Your task to perform on an android device: change alarm snooze length Image 0: 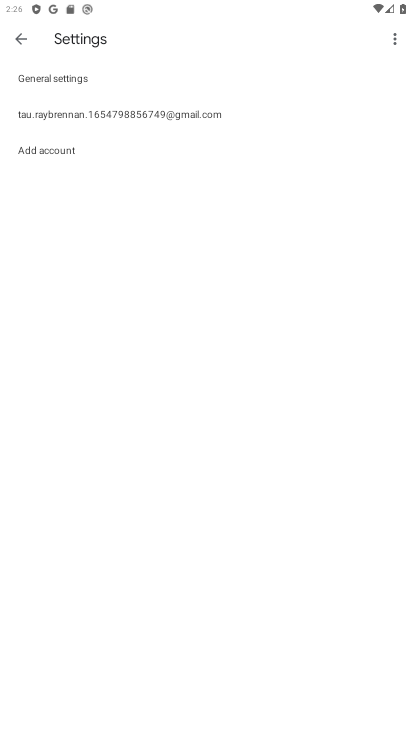
Step 0: press home button
Your task to perform on an android device: change alarm snooze length Image 1: 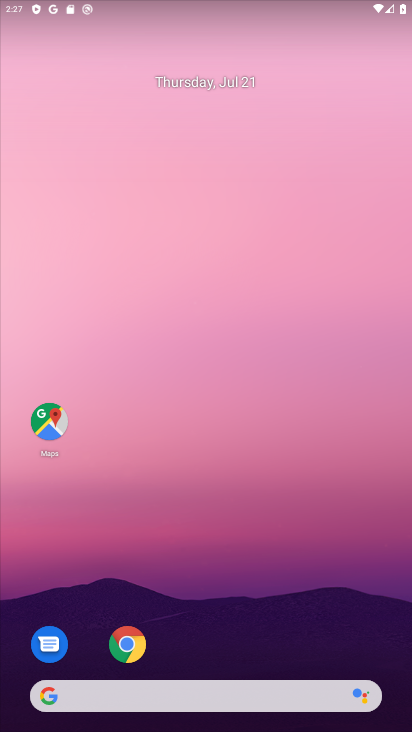
Step 1: drag from (263, 636) to (196, 247)
Your task to perform on an android device: change alarm snooze length Image 2: 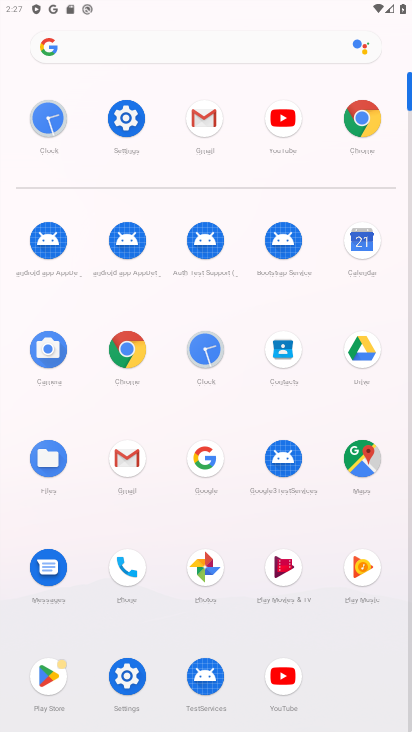
Step 2: click (44, 119)
Your task to perform on an android device: change alarm snooze length Image 3: 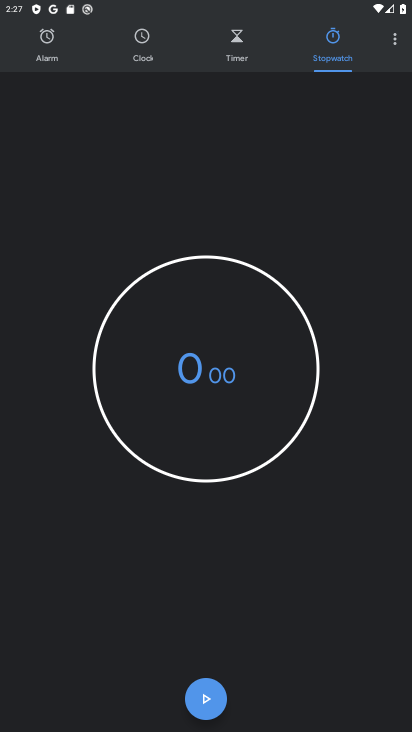
Step 3: click (405, 41)
Your task to perform on an android device: change alarm snooze length Image 4: 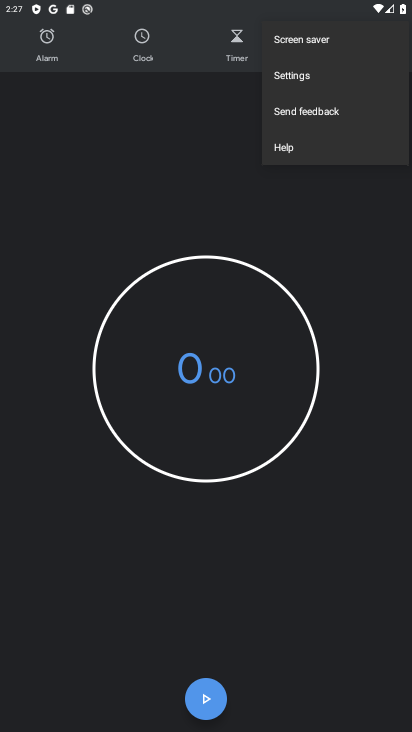
Step 4: click (346, 76)
Your task to perform on an android device: change alarm snooze length Image 5: 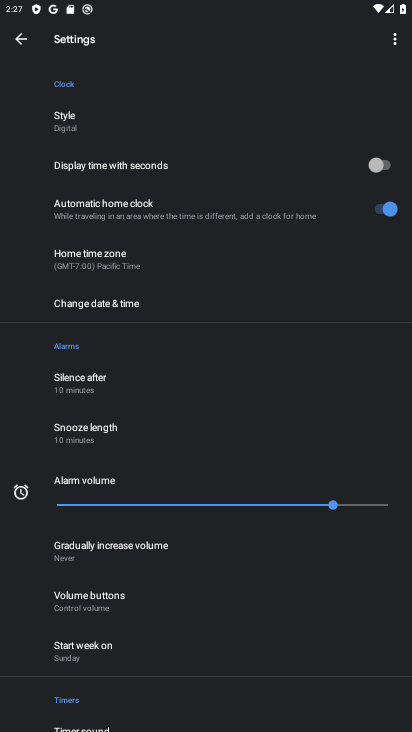
Step 5: click (149, 435)
Your task to perform on an android device: change alarm snooze length Image 6: 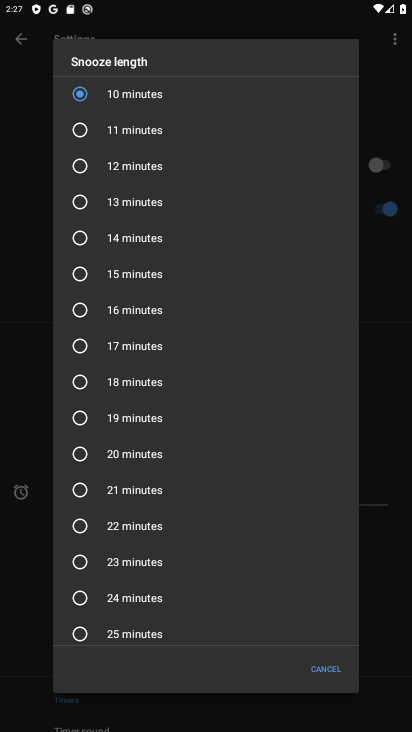
Step 6: click (149, 435)
Your task to perform on an android device: change alarm snooze length Image 7: 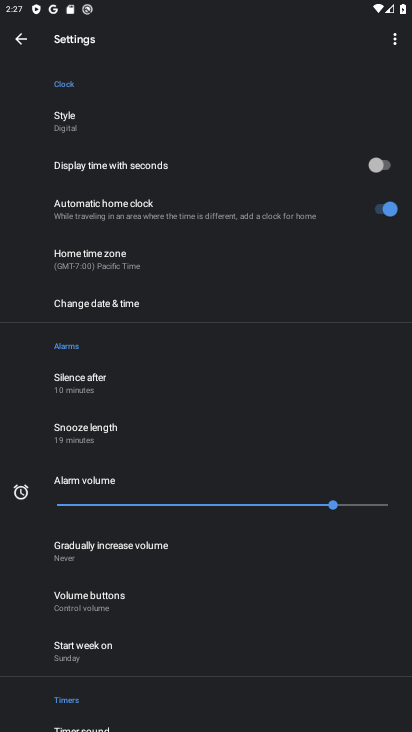
Step 7: task complete